Your task to perform on an android device: Go to settings Image 0: 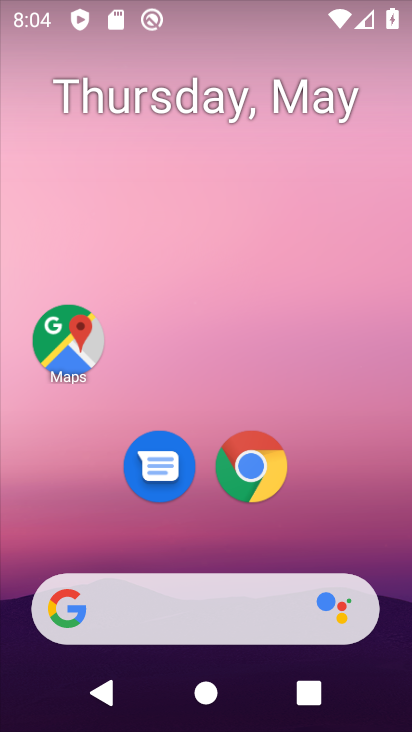
Step 0: drag from (176, 542) to (135, 43)
Your task to perform on an android device: Go to settings Image 1: 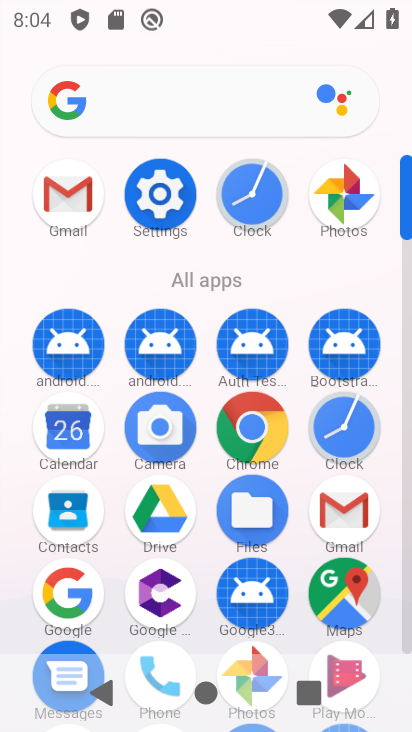
Step 1: click (173, 204)
Your task to perform on an android device: Go to settings Image 2: 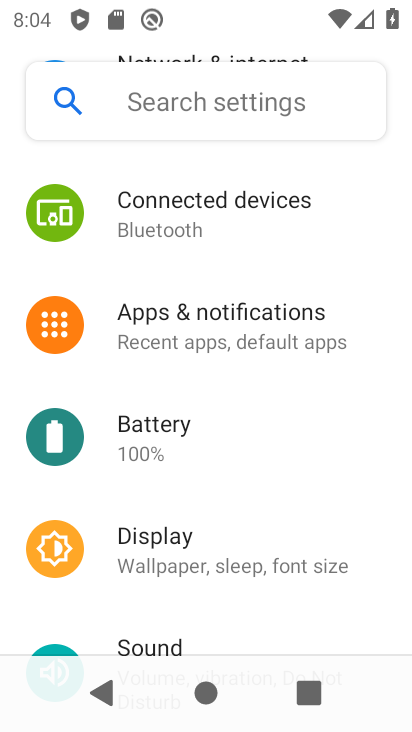
Step 2: task complete